Your task to perform on an android device: Open accessibility settings Image 0: 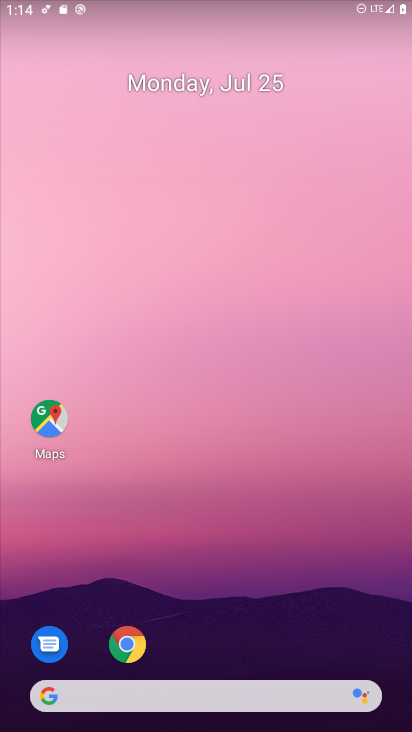
Step 0: drag from (237, 715) to (224, 243)
Your task to perform on an android device: Open accessibility settings Image 1: 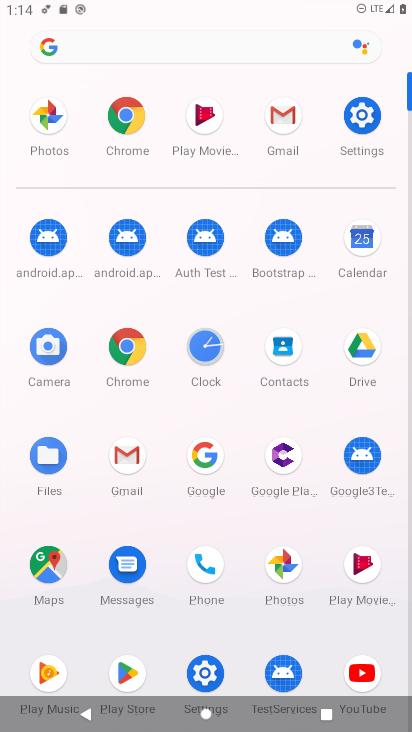
Step 1: click (354, 115)
Your task to perform on an android device: Open accessibility settings Image 2: 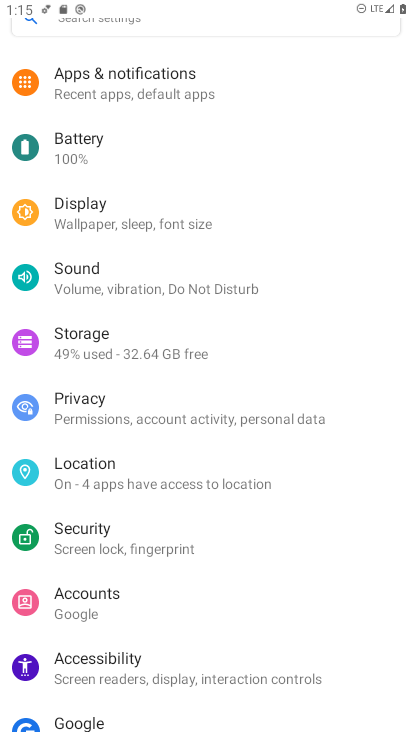
Step 2: click (76, 661)
Your task to perform on an android device: Open accessibility settings Image 3: 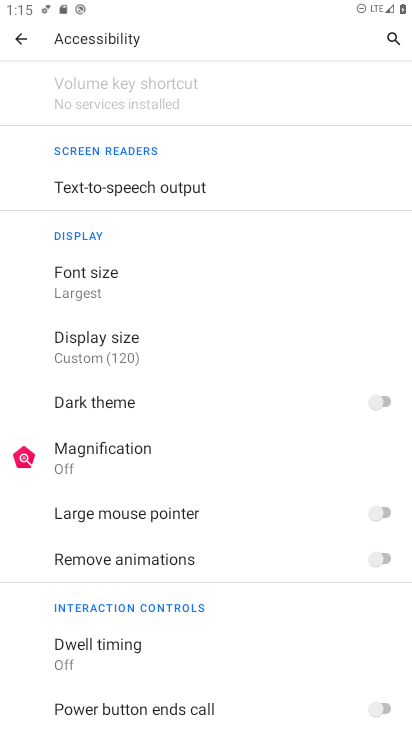
Step 3: task complete